Your task to perform on an android device: Play the last video I watched on Youtube Image 0: 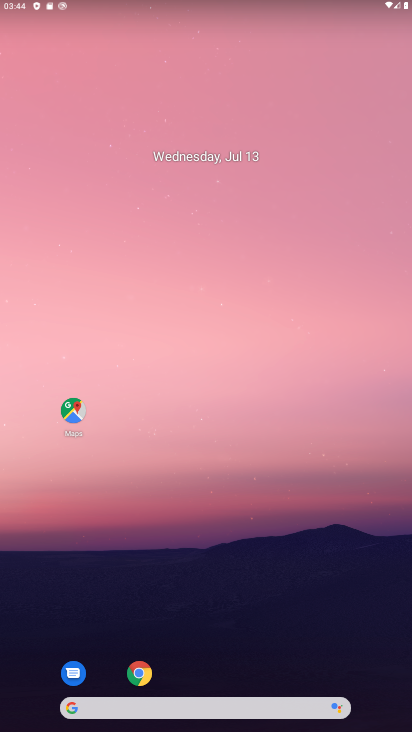
Step 0: drag from (285, 663) to (294, 30)
Your task to perform on an android device: Play the last video I watched on Youtube Image 1: 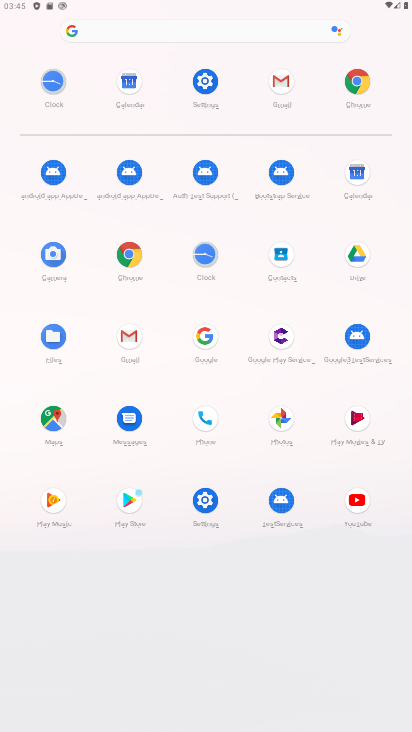
Step 1: click (355, 499)
Your task to perform on an android device: Play the last video I watched on Youtube Image 2: 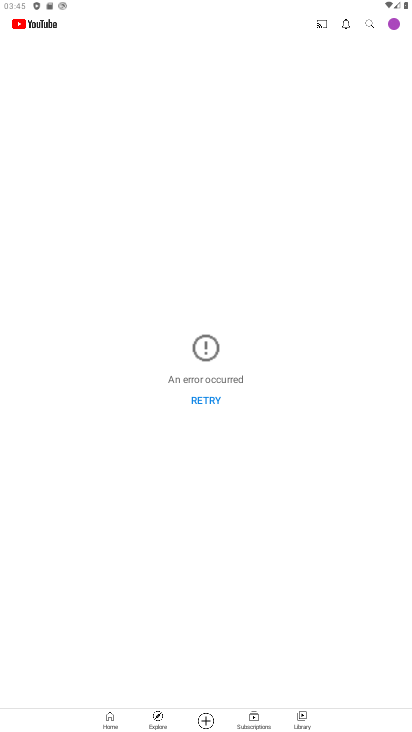
Step 2: click (301, 710)
Your task to perform on an android device: Play the last video I watched on Youtube Image 3: 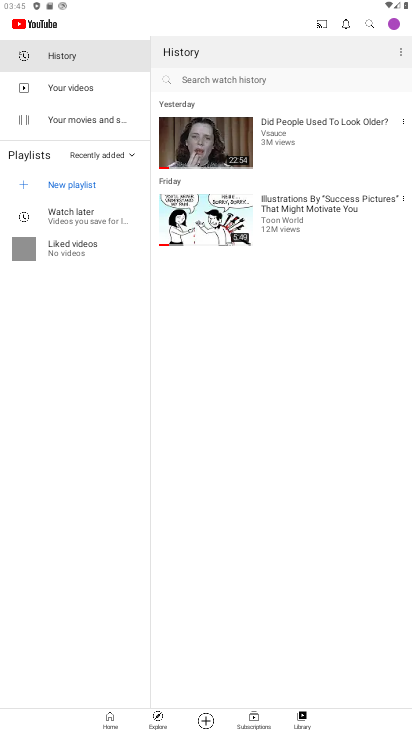
Step 3: task complete